Your task to perform on an android device: find snoozed emails in the gmail app Image 0: 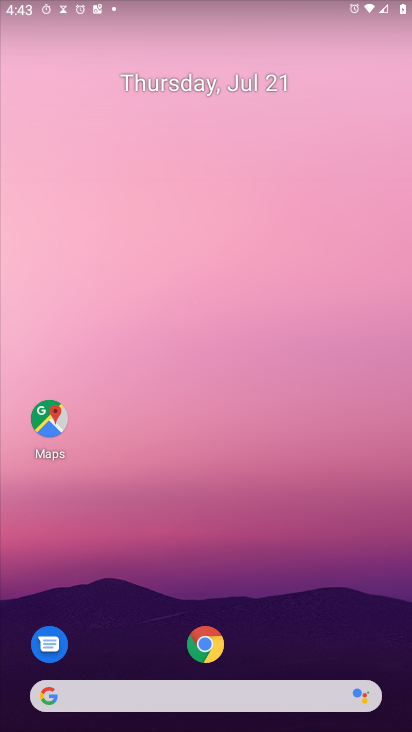
Step 0: press home button
Your task to perform on an android device: find snoozed emails in the gmail app Image 1: 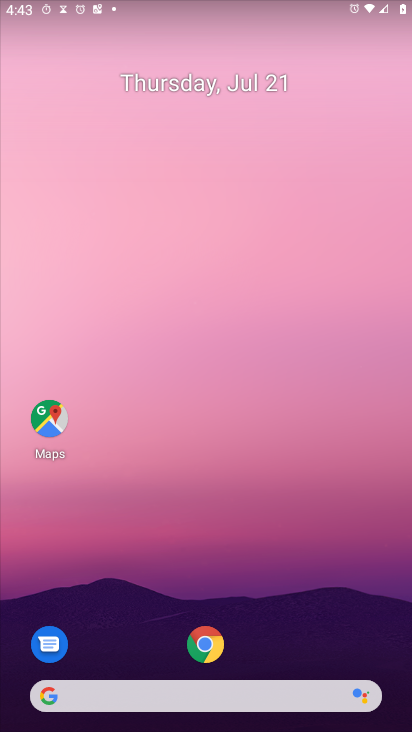
Step 1: drag from (316, 653) to (194, 1)
Your task to perform on an android device: find snoozed emails in the gmail app Image 2: 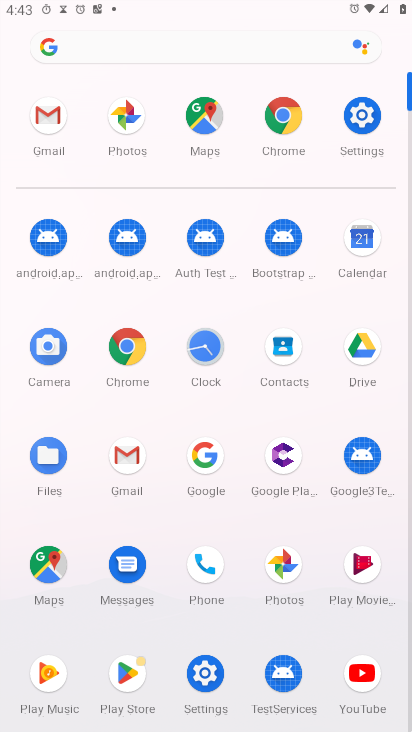
Step 2: click (50, 119)
Your task to perform on an android device: find snoozed emails in the gmail app Image 3: 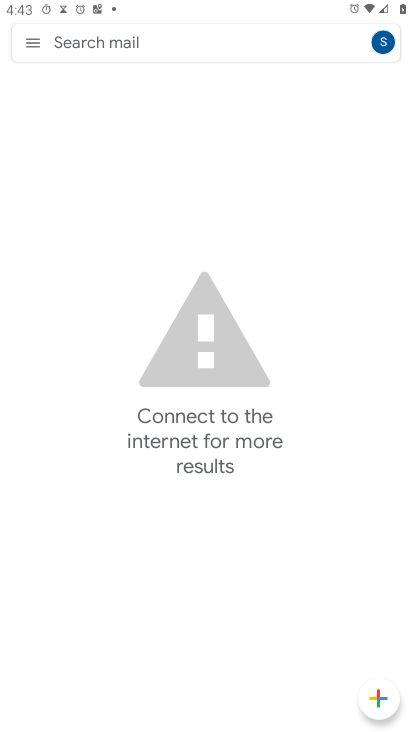
Step 3: click (40, 39)
Your task to perform on an android device: find snoozed emails in the gmail app Image 4: 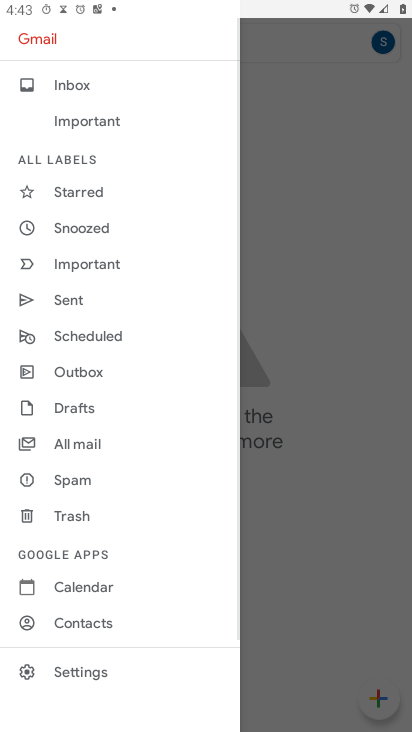
Step 4: click (91, 237)
Your task to perform on an android device: find snoozed emails in the gmail app Image 5: 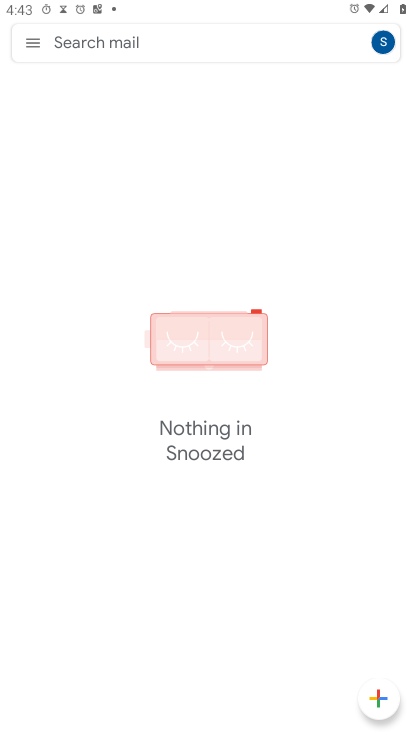
Step 5: task complete